Your task to perform on an android device: Open ESPN.com Image 0: 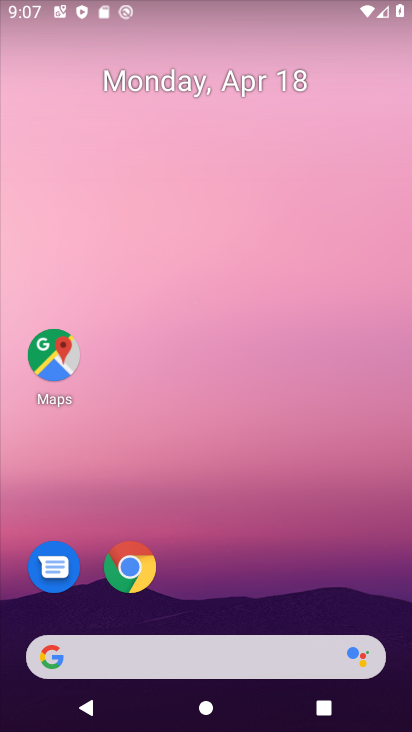
Step 0: click (124, 655)
Your task to perform on an android device: Open ESPN.com Image 1: 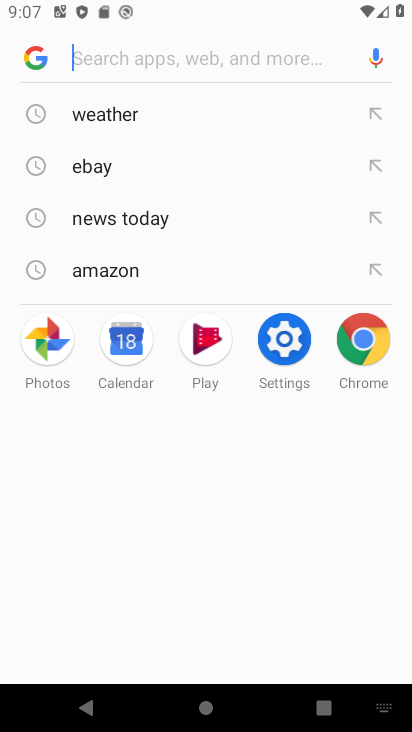
Step 1: type "ESPN.com"
Your task to perform on an android device: Open ESPN.com Image 2: 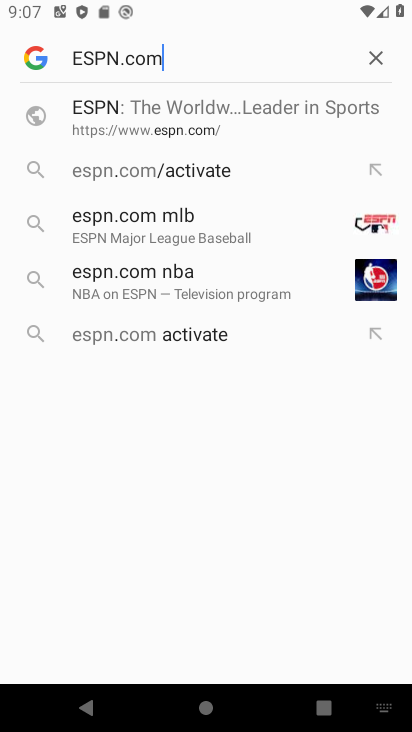
Step 2: click (221, 93)
Your task to perform on an android device: Open ESPN.com Image 3: 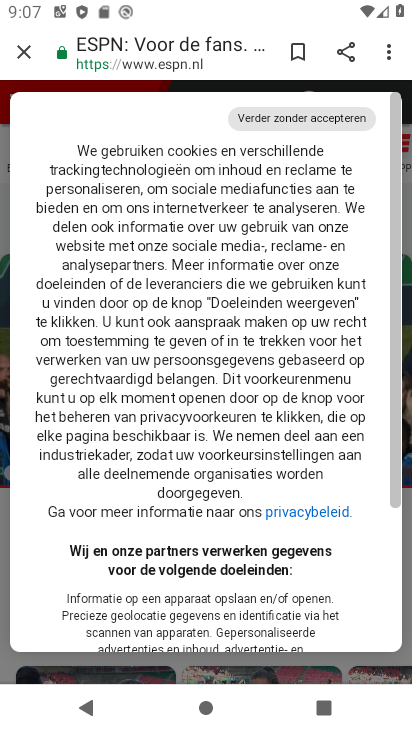
Step 3: task complete